Your task to perform on an android device: What is the recent news? Image 0: 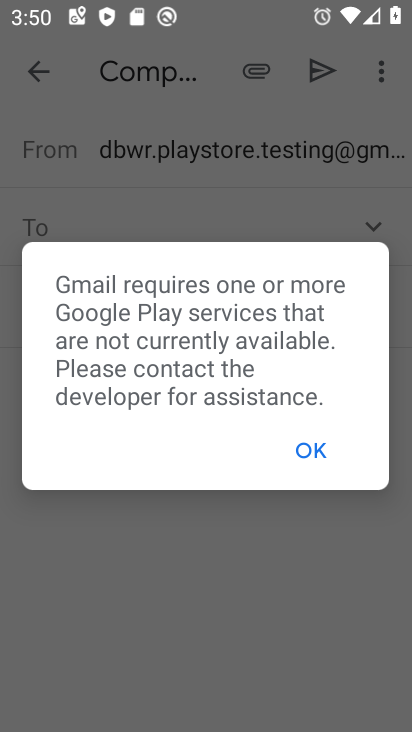
Step 0: press home button
Your task to perform on an android device: What is the recent news? Image 1: 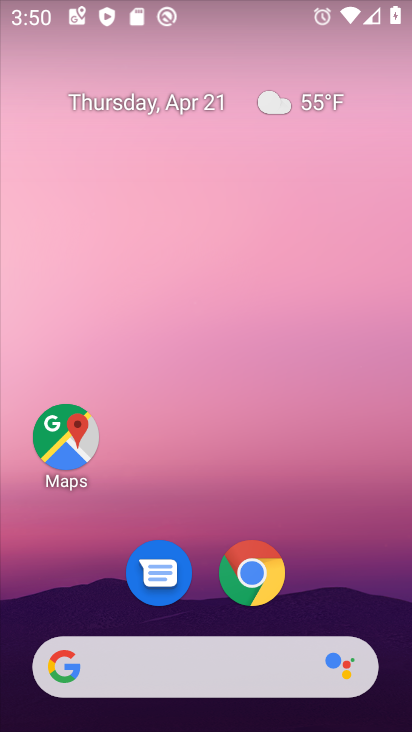
Step 1: task complete